Your task to perform on an android device: Open accessibility settings Image 0: 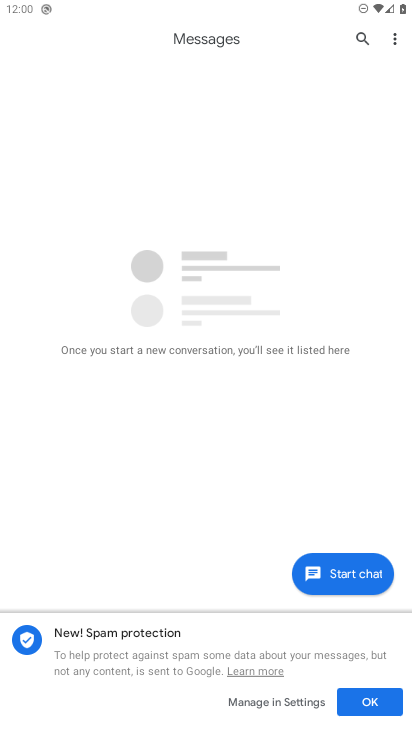
Step 0: press home button
Your task to perform on an android device: Open accessibility settings Image 1: 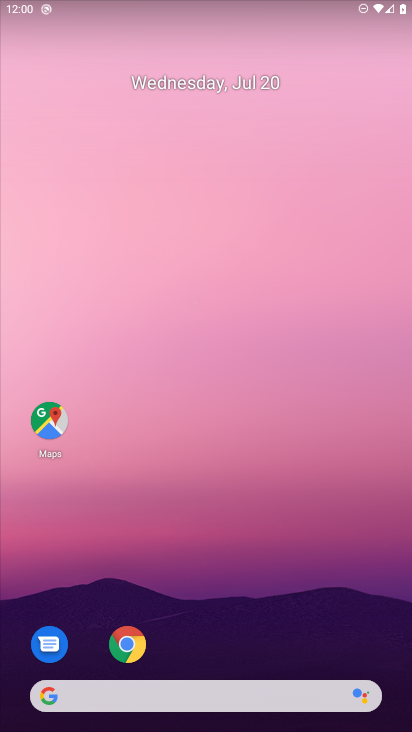
Step 1: drag from (89, 489) to (267, 22)
Your task to perform on an android device: Open accessibility settings Image 2: 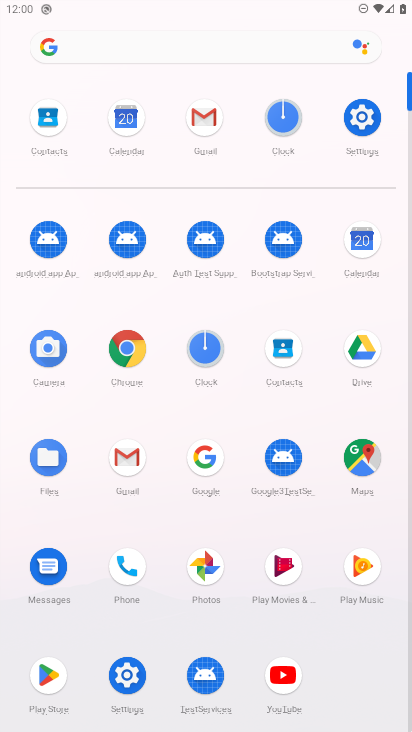
Step 2: click (122, 663)
Your task to perform on an android device: Open accessibility settings Image 3: 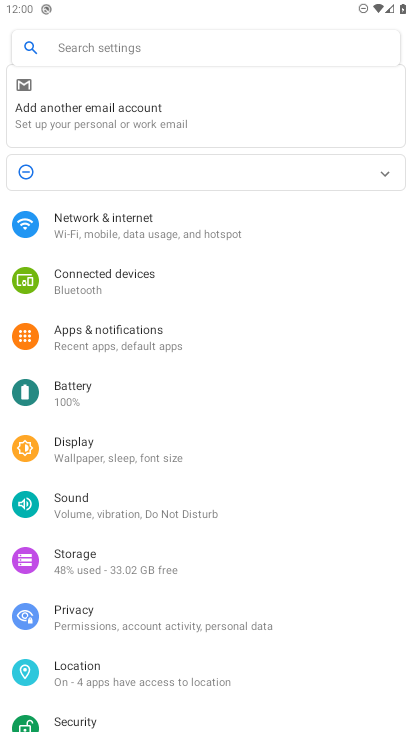
Step 3: drag from (229, 627) to (278, 370)
Your task to perform on an android device: Open accessibility settings Image 4: 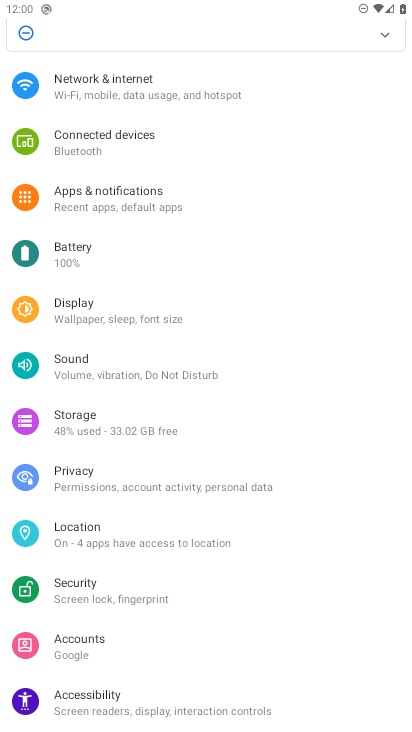
Step 4: click (103, 699)
Your task to perform on an android device: Open accessibility settings Image 5: 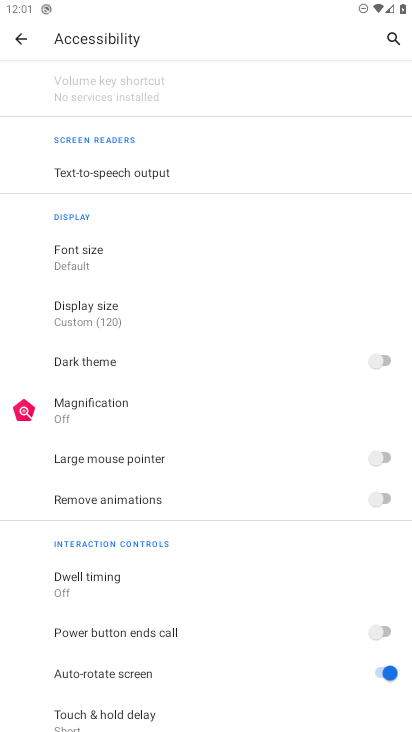
Step 5: task complete